Your task to perform on an android device: toggle sleep mode Image 0: 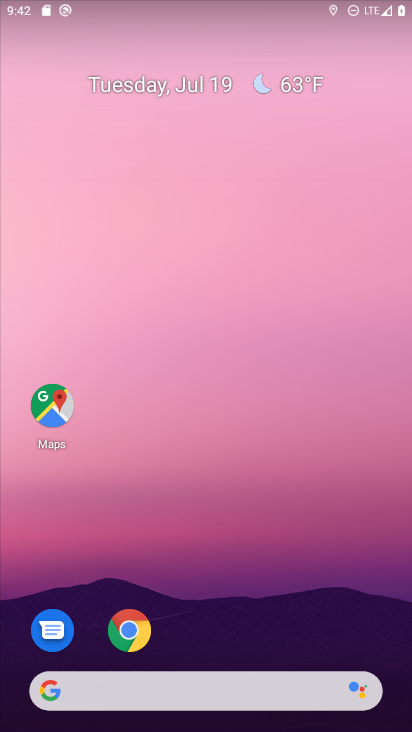
Step 0: press home button
Your task to perform on an android device: toggle sleep mode Image 1: 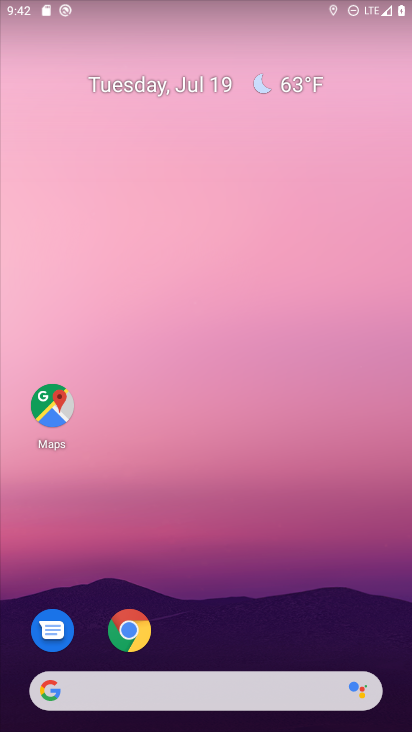
Step 1: drag from (194, 687) to (166, 246)
Your task to perform on an android device: toggle sleep mode Image 2: 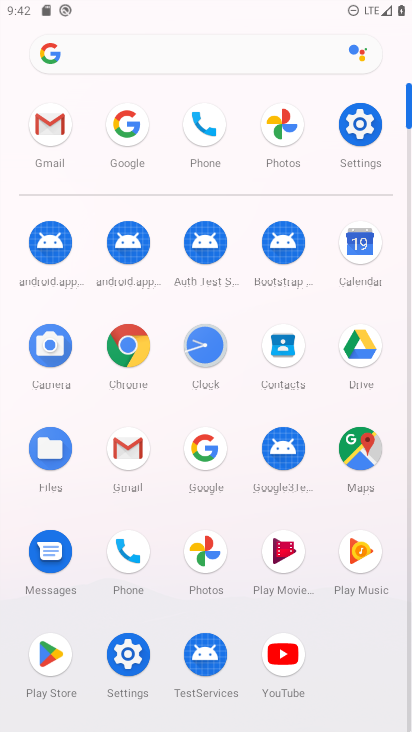
Step 2: click (127, 653)
Your task to perform on an android device: toggle sleep mode Image 3: 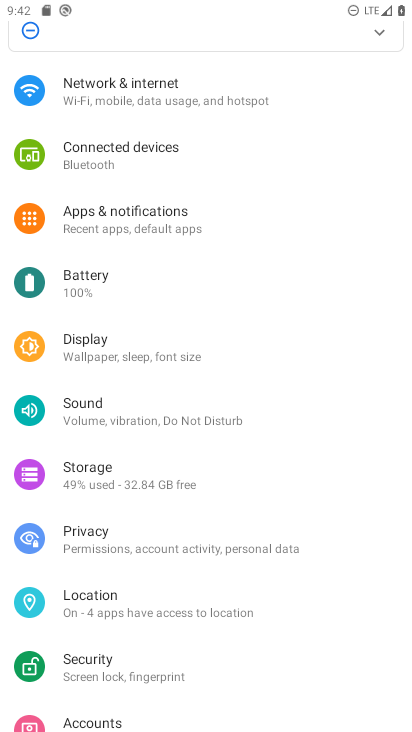
Step 3: drag from (103, 560) to (116, 429)
Your task to perform on an android device: toggle sleep mode Image 4: 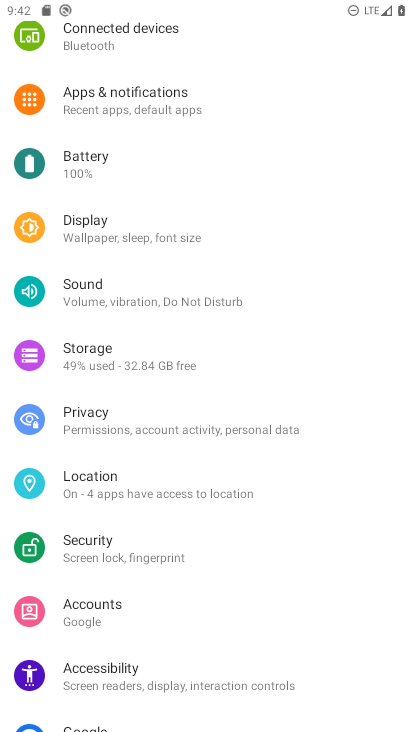
Step 4: click (141, 229)
Your task to perform on an android device: toggle sleep mode Image 5: 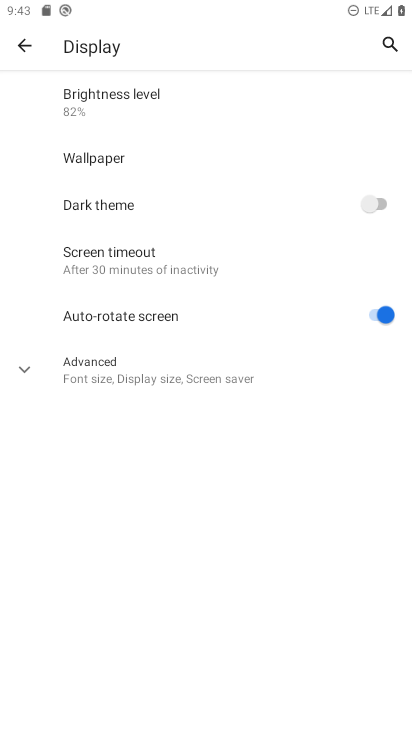
Step 5: click (136, 389)
Your task to perform on an android device: toggle sleep mode Image 6: 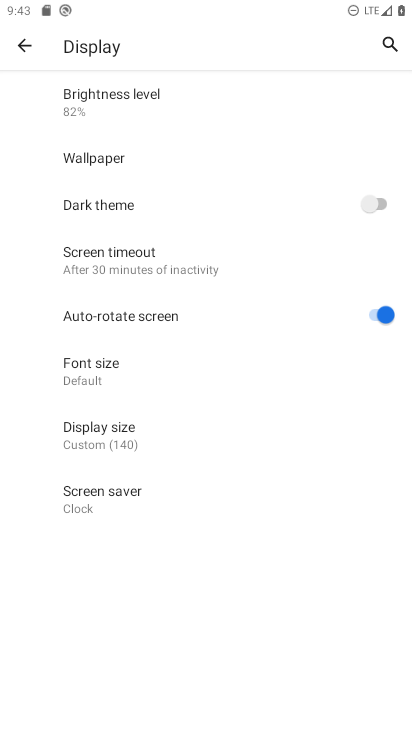
Step 6: task complete